Your task to perform on an android device: Open the calendar app, open the side menu, and click the "Day" option Image 0: 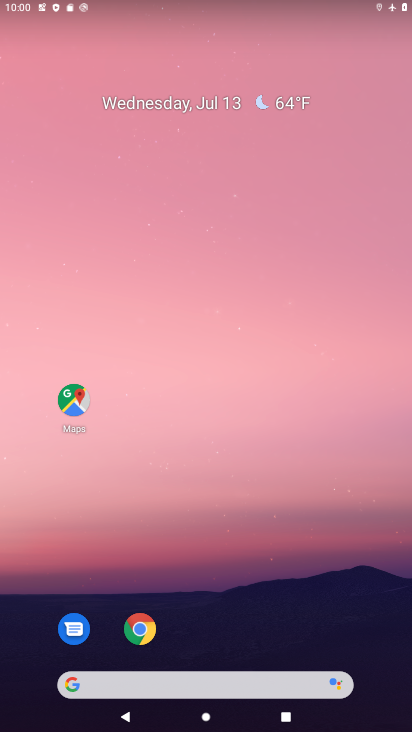
Step 0: drag from (248, 643) to (250, 85)
Your task to perform on an android device: Open the calendar app, open the side menu, and click the "Day" option Image 1: 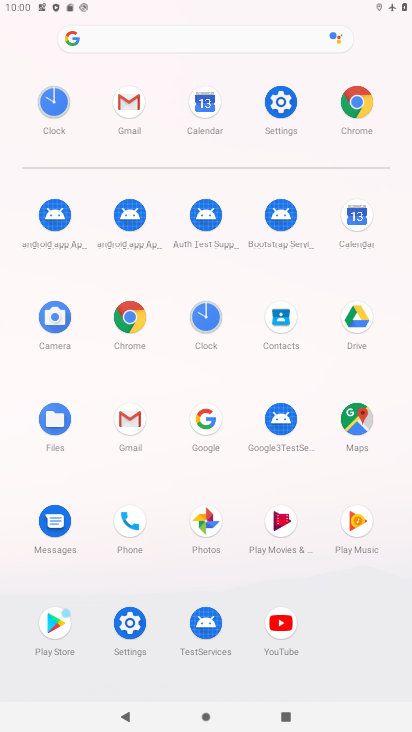
Step 1: click (356, 203)
Your task to perform on an android device: Open the calendar app, open the side menu, and click the "Day" option Image 2: 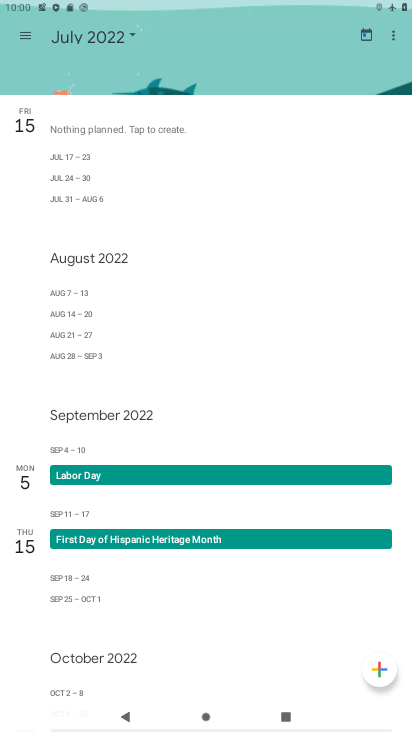
Step 2: click (25, 26)
Your task to perform on an android device: Open the calendar app, open the side menu, and click the "Day" option Image 3: 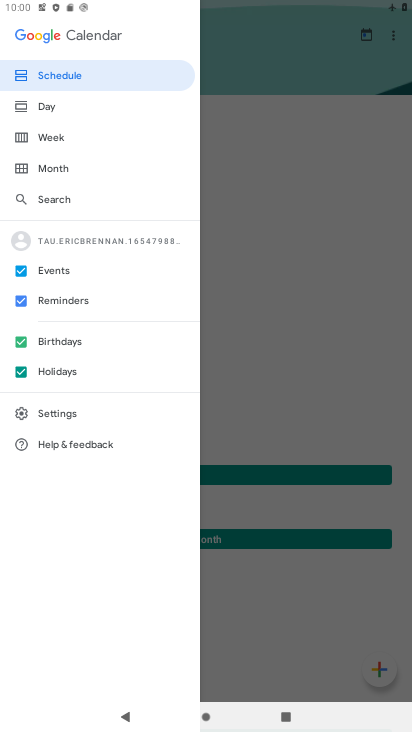
Step 3: click (60, 114)
Your task to perform on an android device: Open the calendar app, open the side menu, and click the "Day" option Image 4: 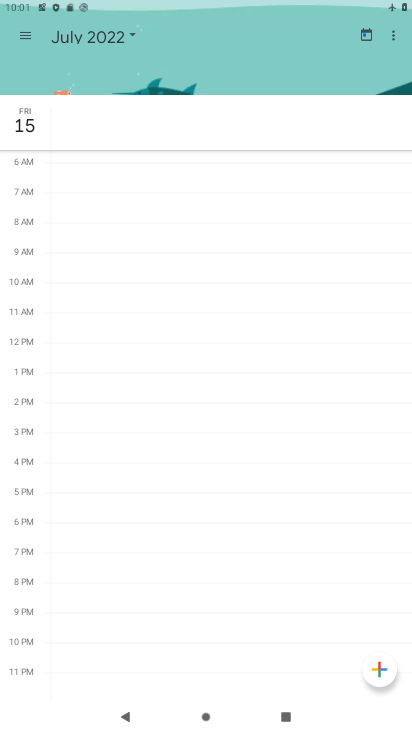
Step 4: click (21, 32)
Your task to perform on an android device: Open the calendar app, open the side menu, and click the "Day" option Image 5: 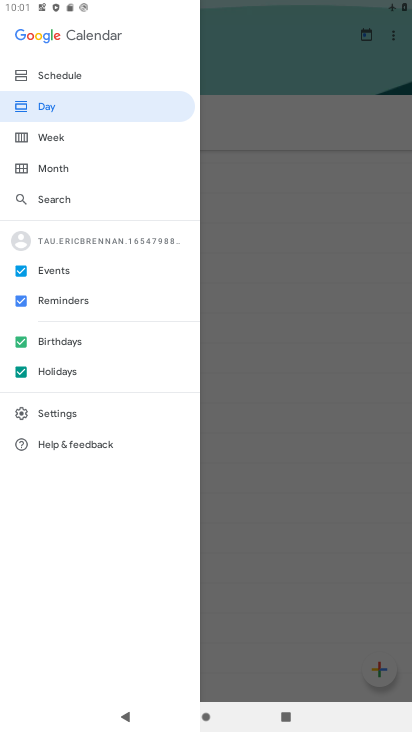
Step 5: click (56, 106)
Your task to perform on an android device: Open the calendar app, open the side menu, and click the "Day" option Image 6: 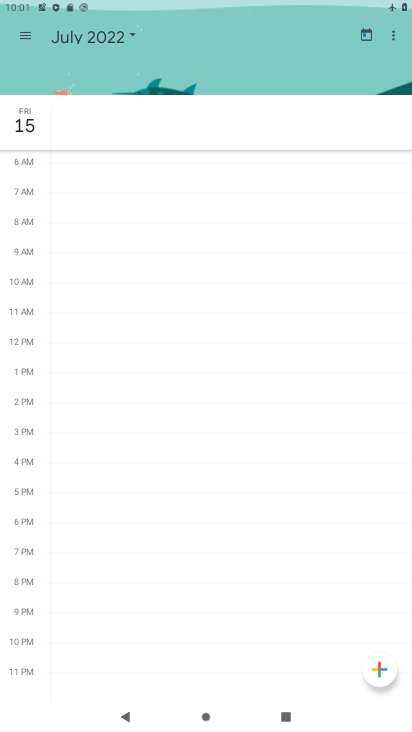
Step 6: task complete